Your task to perform on an android device: toggle pop-ups in chrome Image 0: 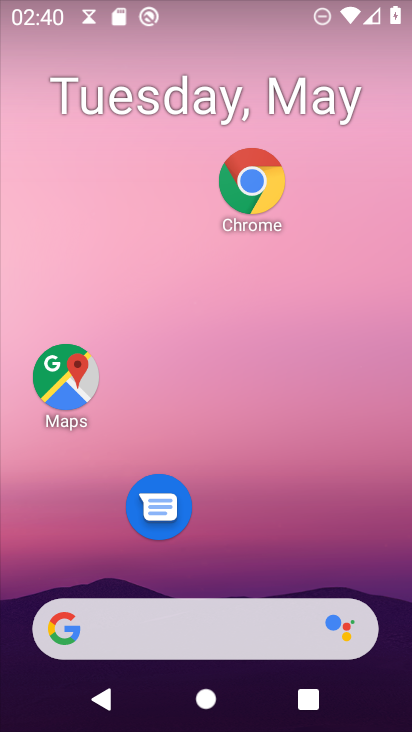
Step 0: drag from (290, 481) to (290, 66)
Your task to perform on an android device: toggle pop-ups in chrome Image 1: 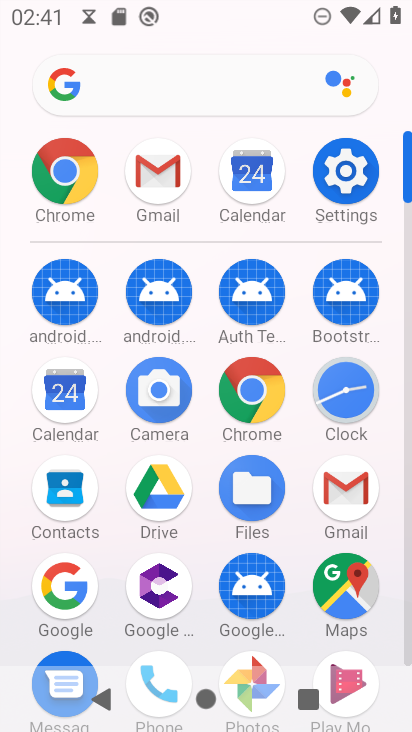
Step 1: click (253, 386)
Your task to perform on an android device: toggle pop-ups in chrome Image 2: 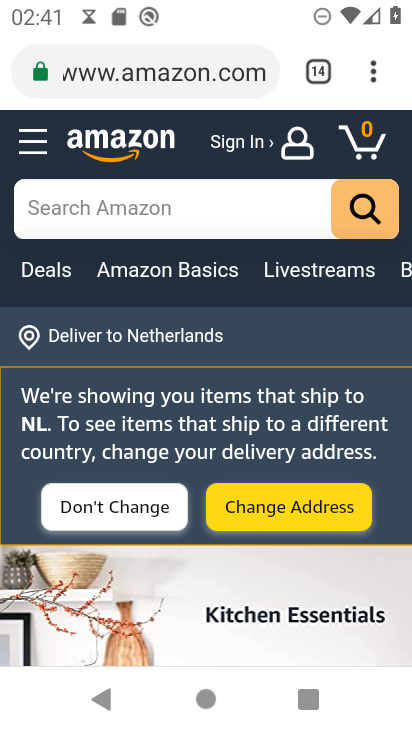
Step 2: click (377, 62)
Your task to perform on an android device: toggle pop-ups in chrome Image 3: 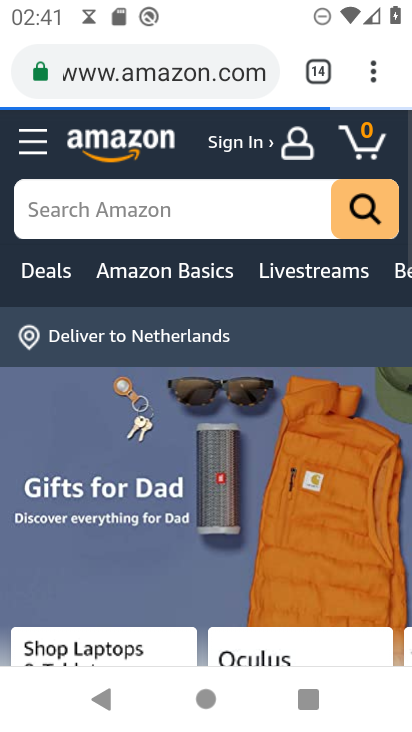
Step 3: click (366, 55)
Your task to perform on an android device: toggle pop-ups in chrome Image 4: 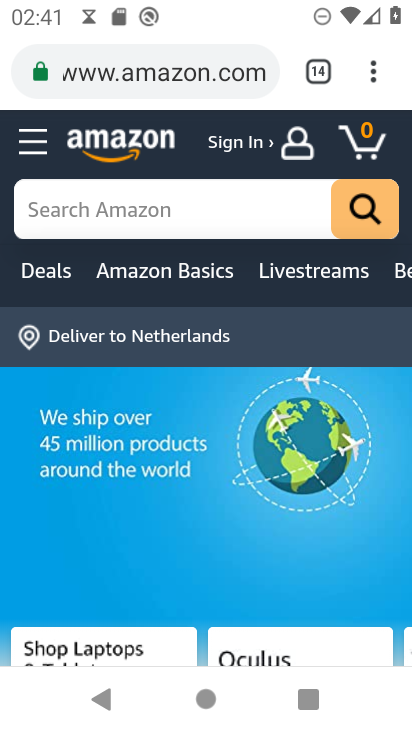
Step 4: click (384, 84)
Your task to perform on an android device: toggle pop-ups in chrome Image 5: 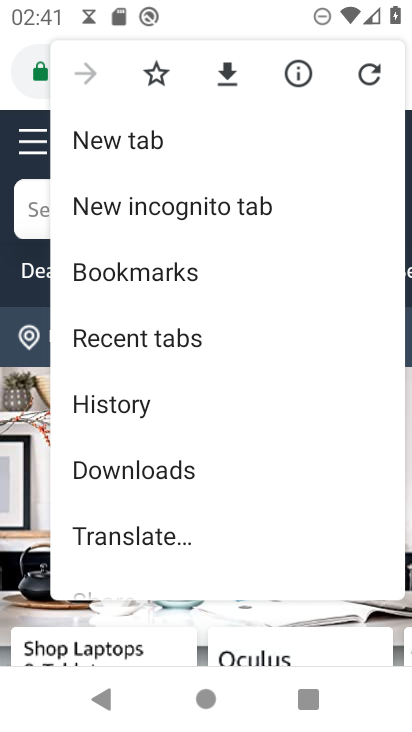
Step 5: drag from (245, 499) to (290, 263)
Your task to perform on an android device: toggle pop-ups in chrome Image 6: 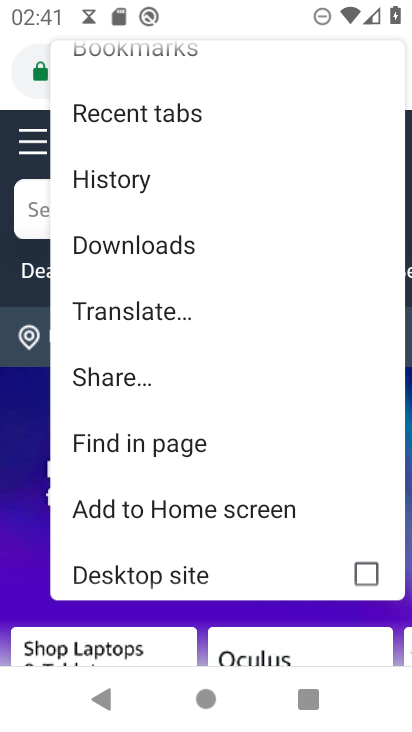
Step 6: drag from (154, 530) to (218, 220)
Your task to perform on an android device: toggle pop-ups in chrome Image 7: 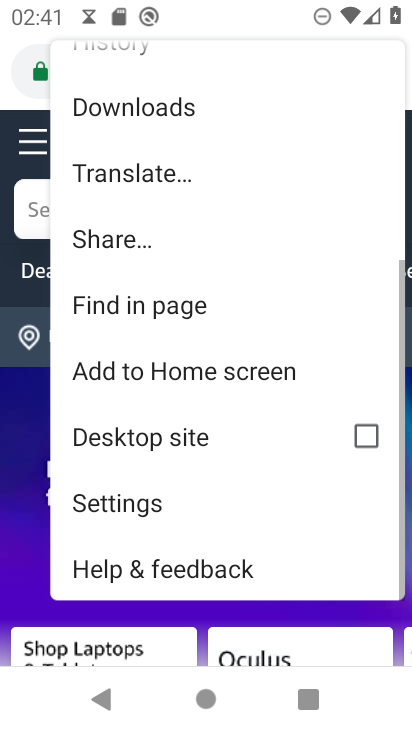
Step 7: click (96, 500)
Your task to perform on an android device: toggle pop-ups in chrome Image 8: 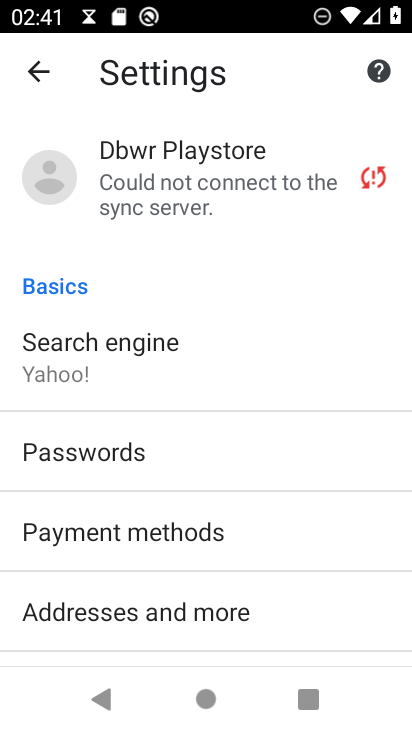
Step 8: click (157, 416)
Your task to perform on an android device: toggle pop-ups in chrome Image 9: 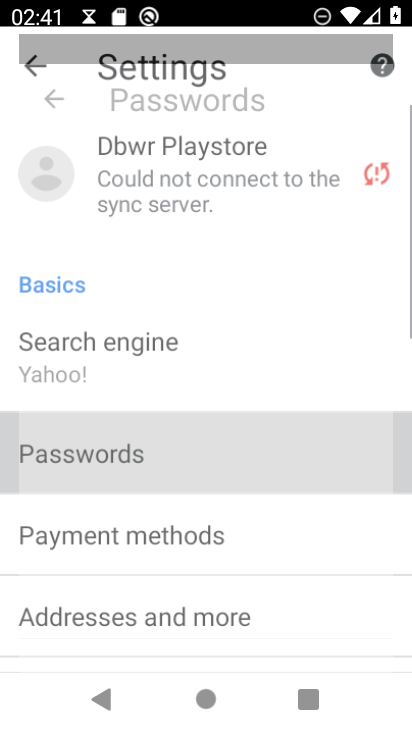
Step 9: drag from (210, 476) to (252, 225)
Your task to perform on an android device: toggle pop-ups in chrome Image 10: 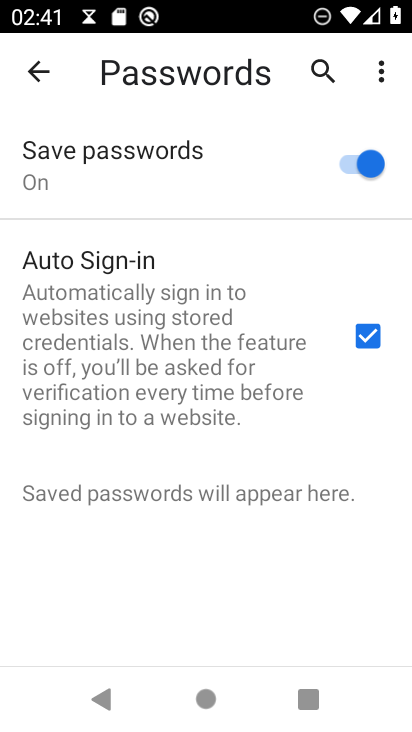
Step 10: click (35, 84)
Your task to perform on an android device: toggle pop-ups in chrome Image 11: 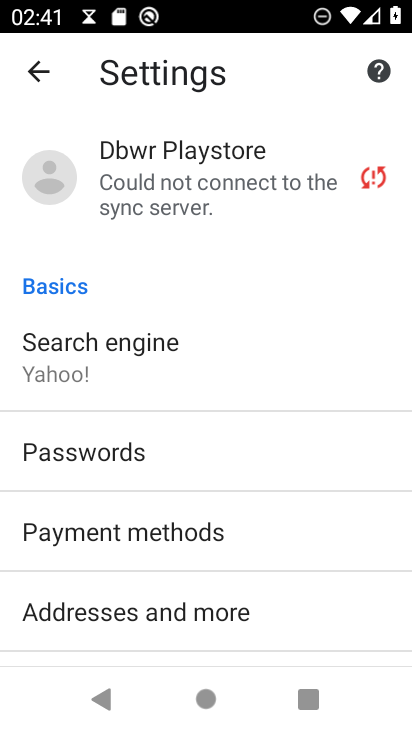
Step 11: drag from (245, 570) to (273, 213)
Your task to perform on an android device: toggle pop-ups in chrome Image 12: 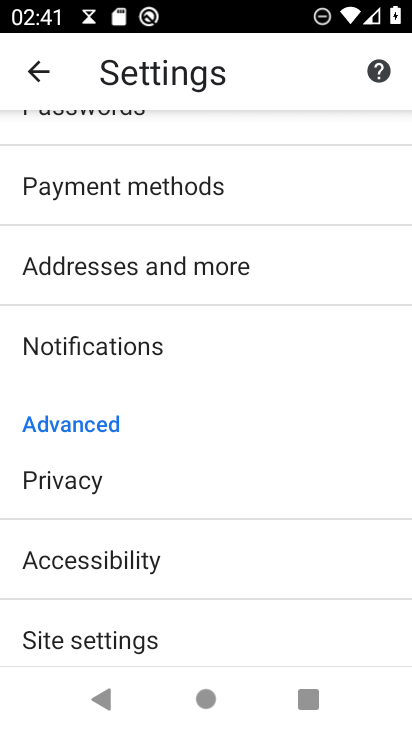
Step 12: drag from (197, 602) to (253, 242)
Your task to perform on an android device: toggle pop-ups in chrome Image 13: 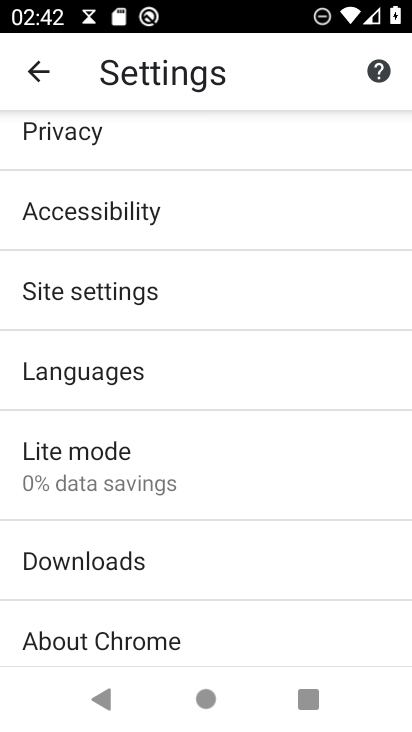
Step 13: drag from (136, 530) to (185, 257)
Your task to perform on an android device: toggle pop-ups in chrome Image 14: 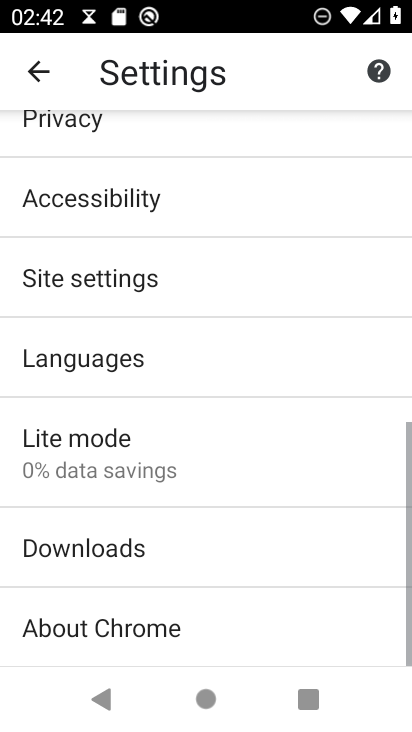
Step 14: click (155, 269)
Your task to perform on an android device: toggle pop-ups in chrome Image 15: 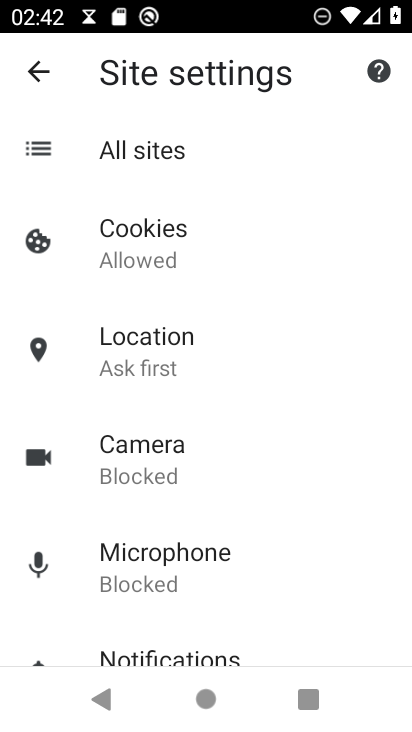
Step 15: drag from (212, 581) to (287, 146)
Your task to perform on an android device: toggle pop-ups in chrome Image 16: 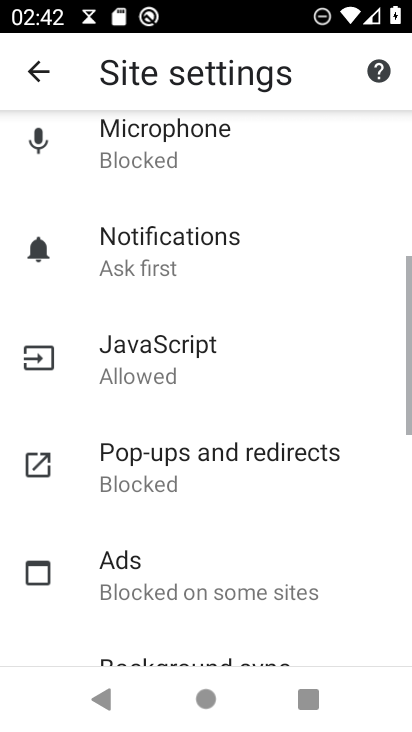
Step 16: drag from (177, 559) to (238, 232)
Your task to perform on an android device: toggle pop-ups in chrome Image 17: 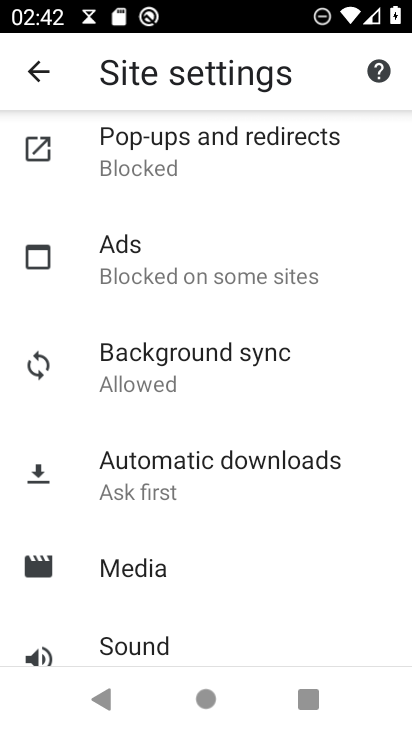
Step 17: click (207, 167)
Your task to perform on an android device: toggle pop-ups in chrome Image 18: 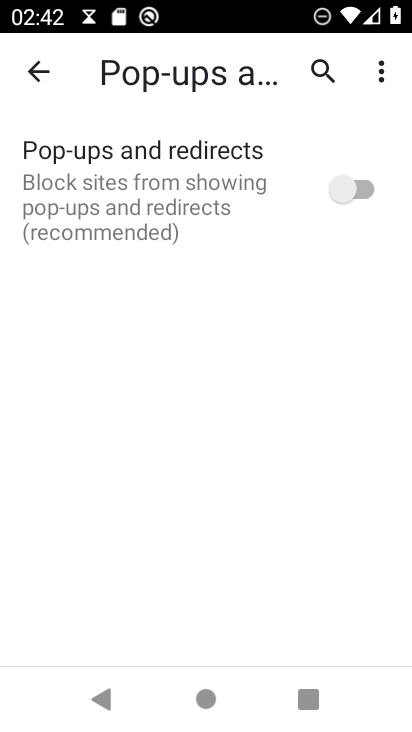
Step 18: click (346, 193)
Your task to perform on an android device: toggle pop-ups in chrome Image 19: 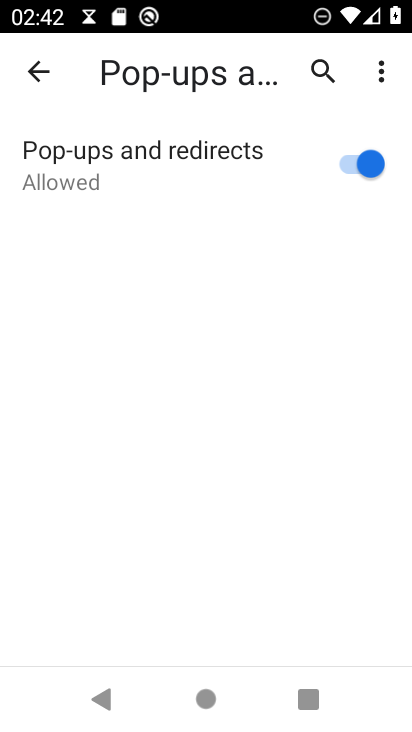
Step 19: task complete